Your task to perform on an android device: Search for vegetarian restaurants on Maps Image 0: 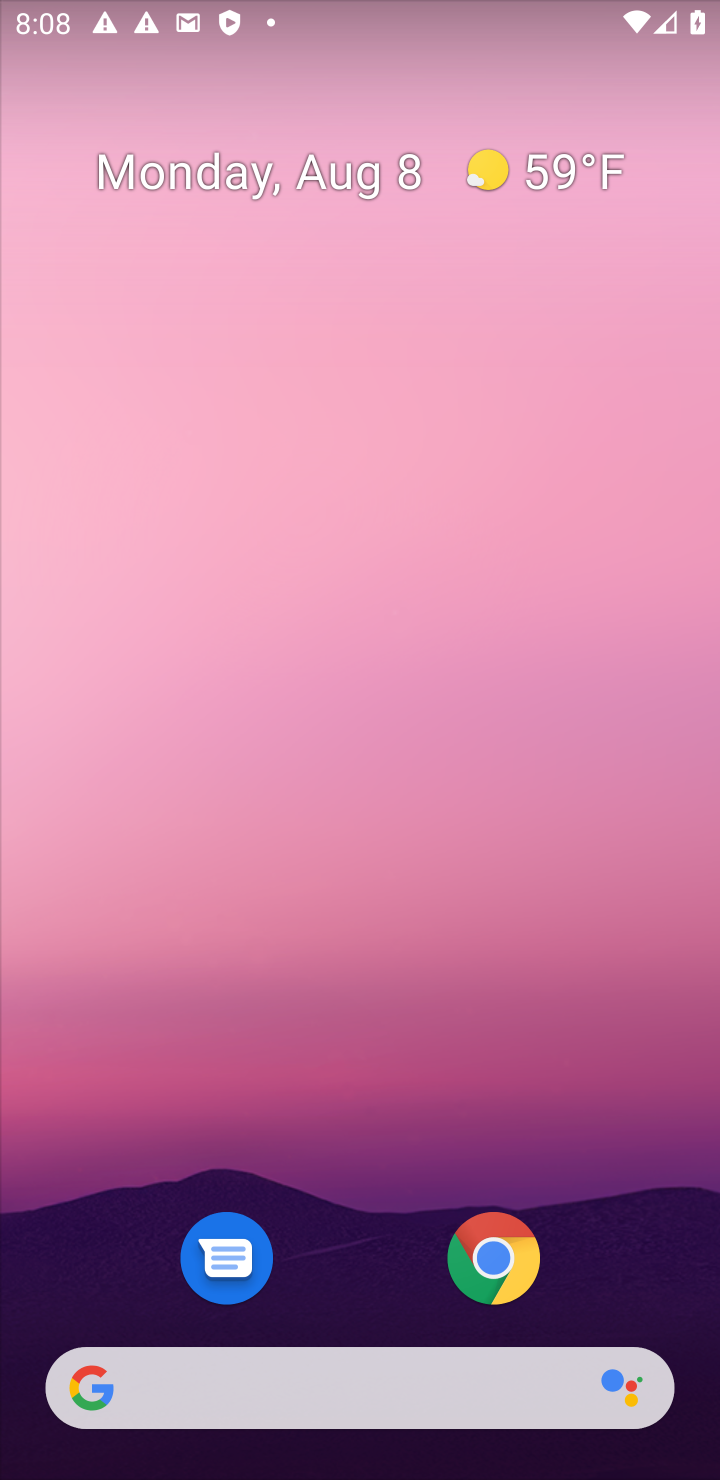
Step 0: drag from (373, 1157) to (380, 172)
Your task to perform on an android device: Search for vegetarian restaurants on Maps Image 1: 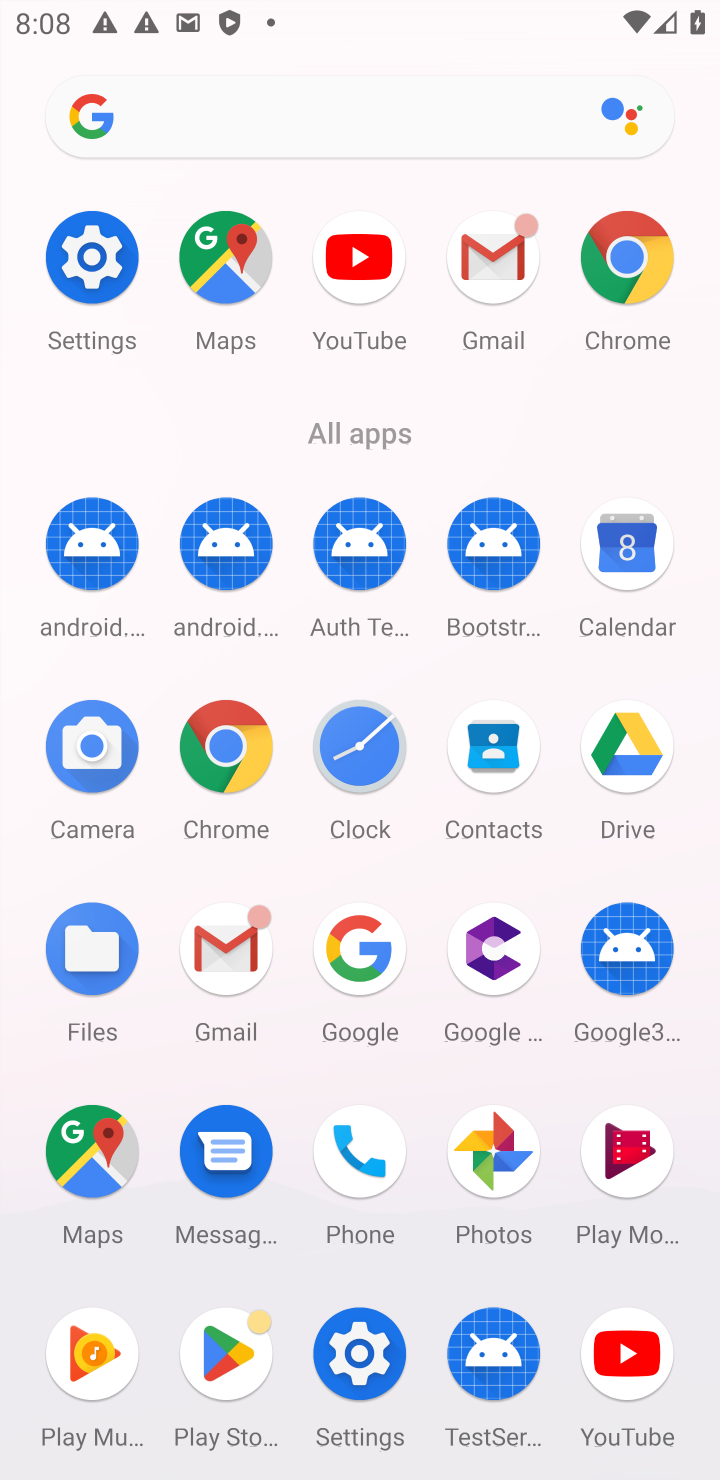
Step 1: click (69, 1164)
Your task to perform on an android device: Search for vegetarian restaurants on Maps Image 2: 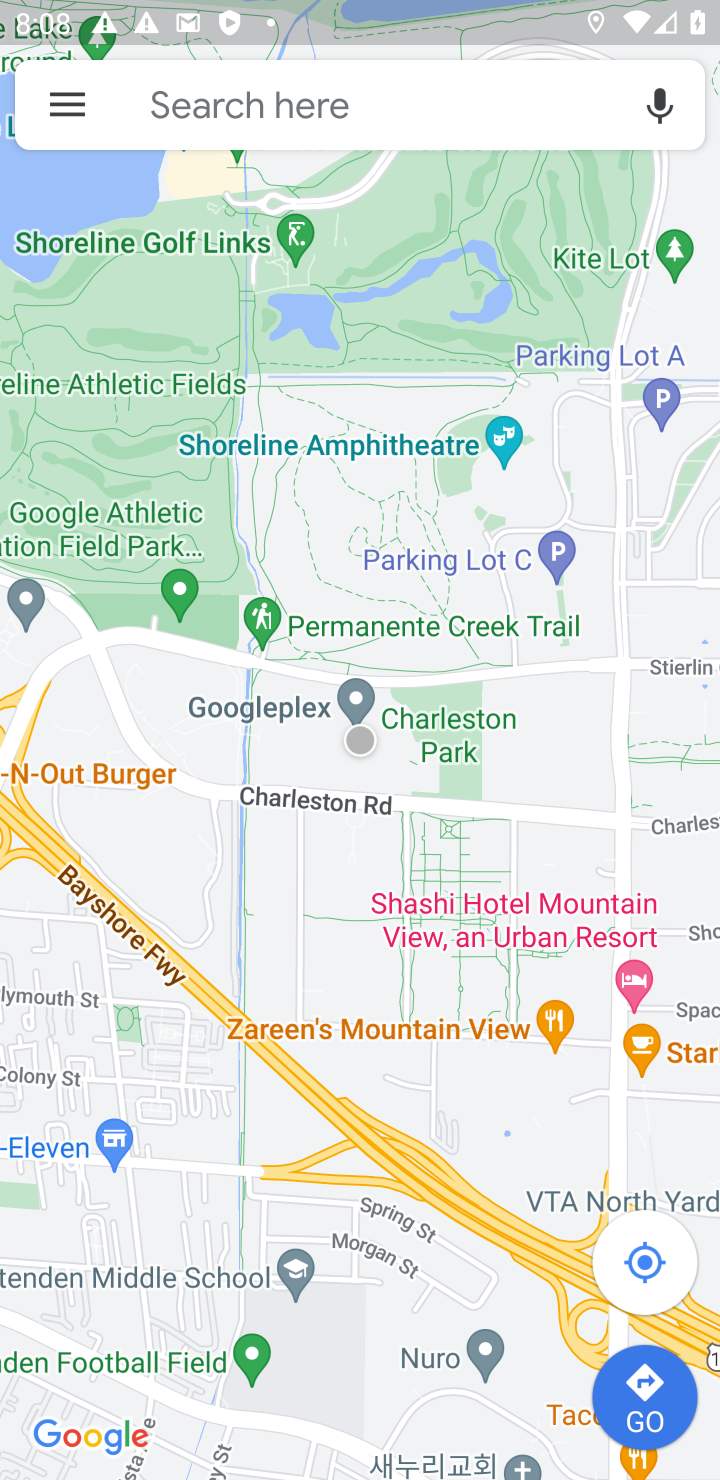
Step 2: click (459, 110)
Your task to perform on an android device: Search for vegetarian restaurants on Maps Image 3: 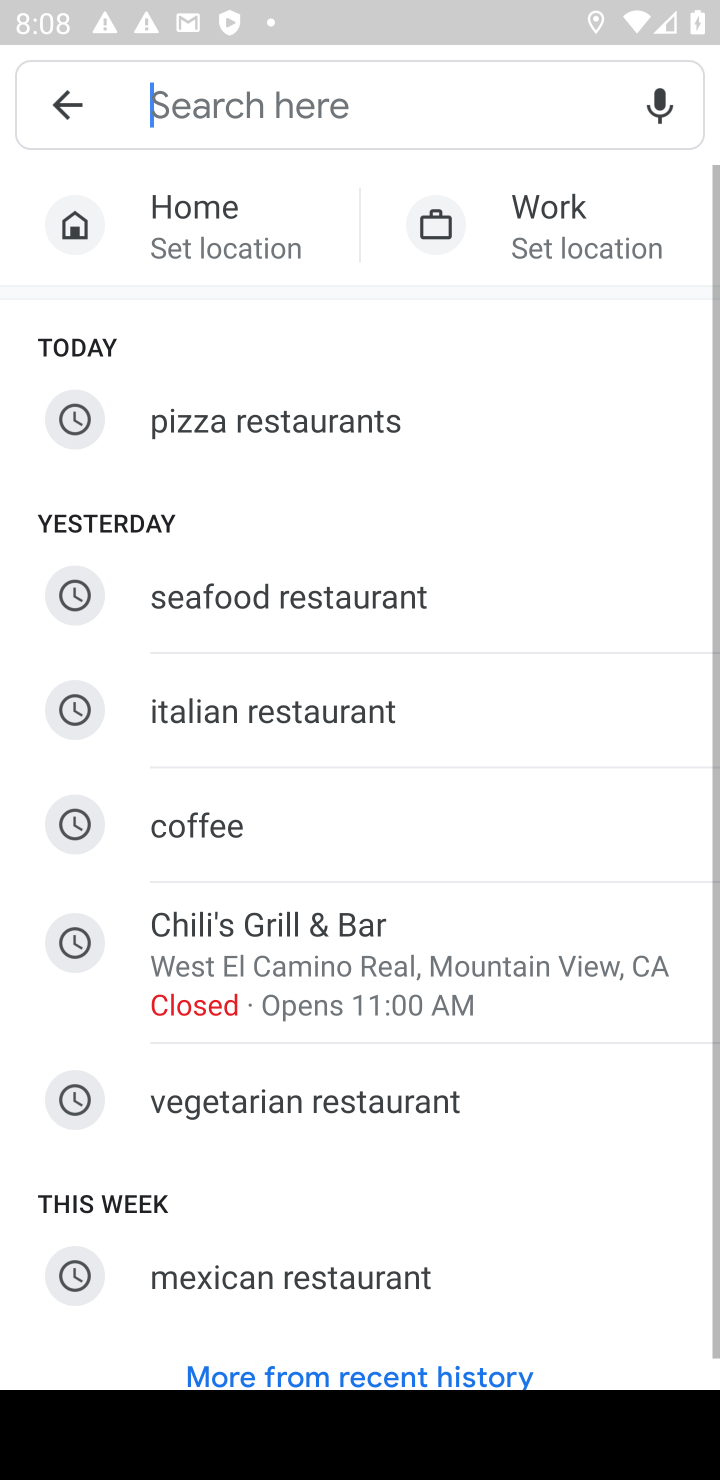
Step 3: type "vegetarian restaurants"
Your task to perform on an android device: Search for vegetarian restaurants on Maps Image 4: 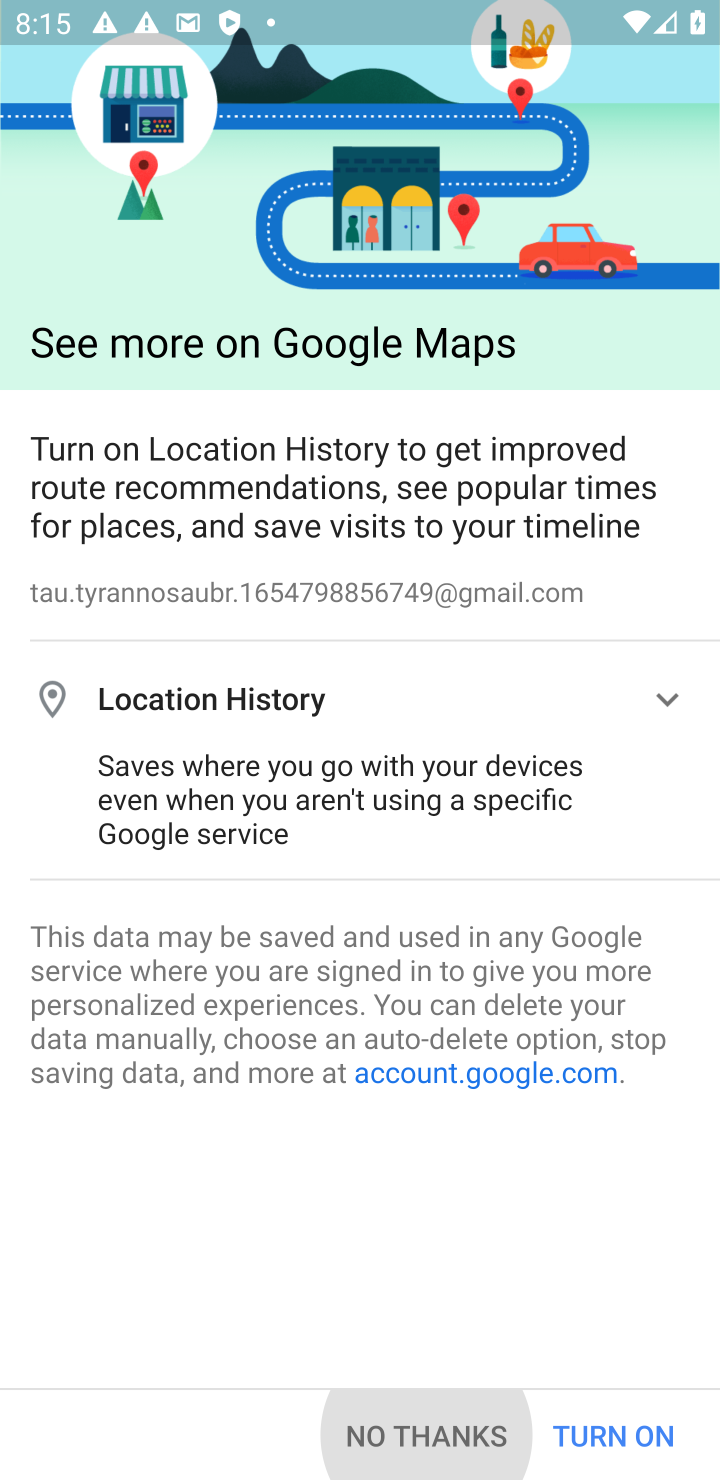
Step 4: press home button
Your task to perform on an android device: Search for vegetarian restaurants on Maps Image 5: 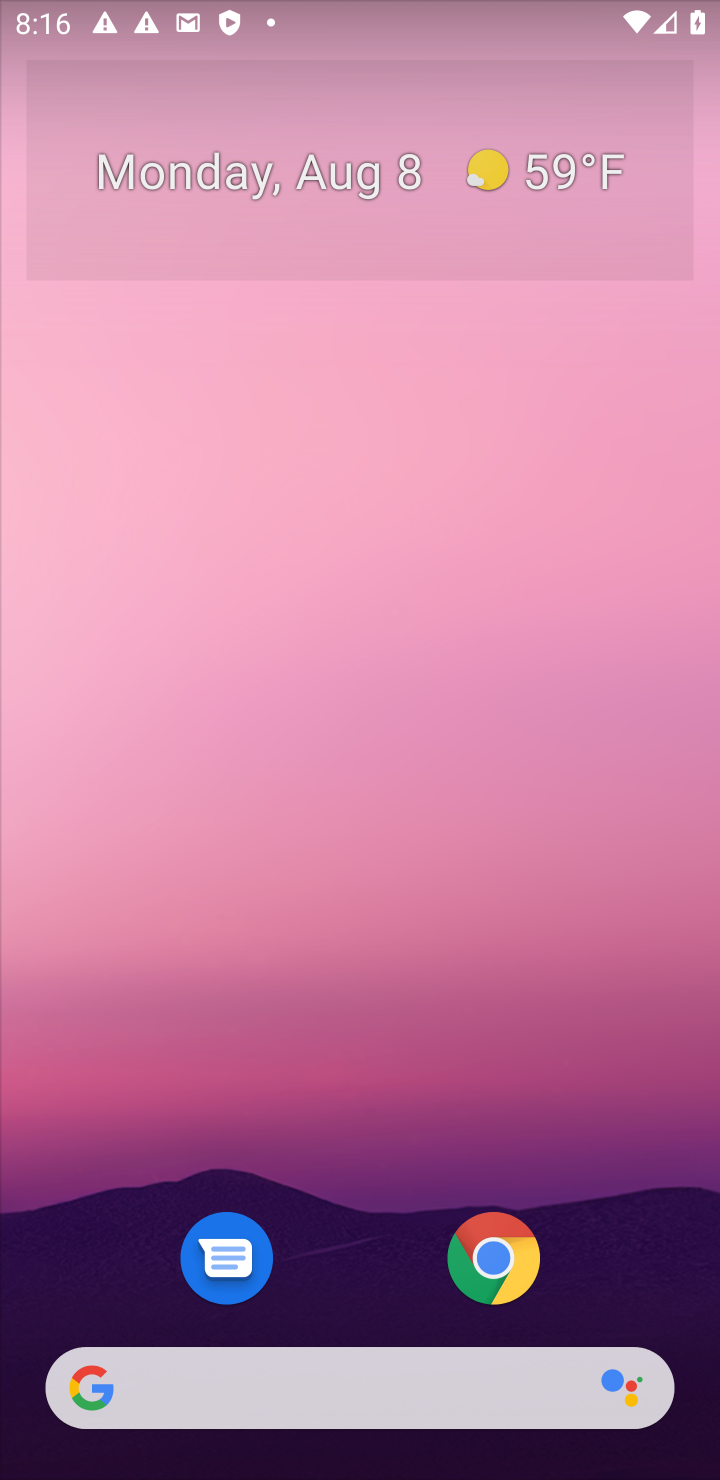
Step 5: drag from (423, 975) to (489, 104)
Your task to perform on an android device: Search for vegetarian restaurants on Maps Image 6: 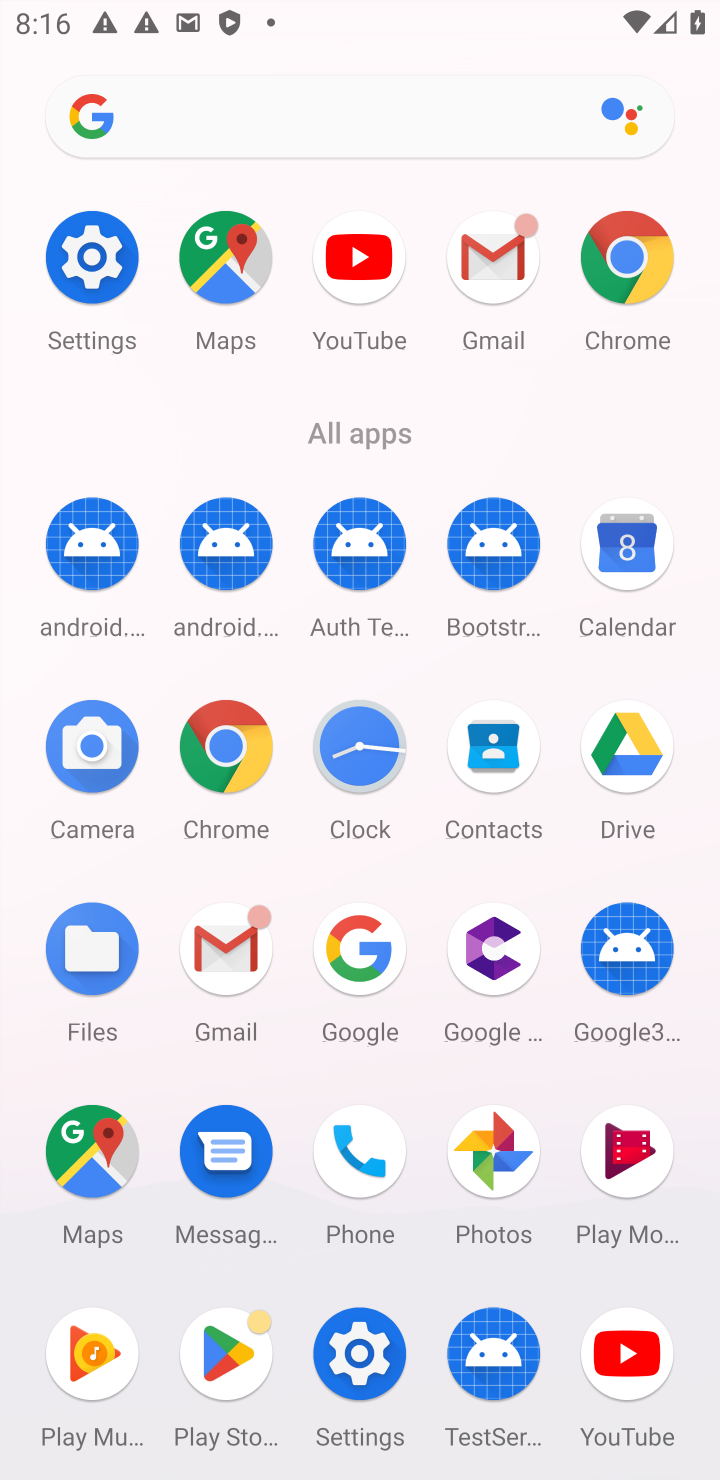
Step 6: click (225, 267)
Your task to perform on an android device: Search for vegetarian restaurants on Maps Image 7: 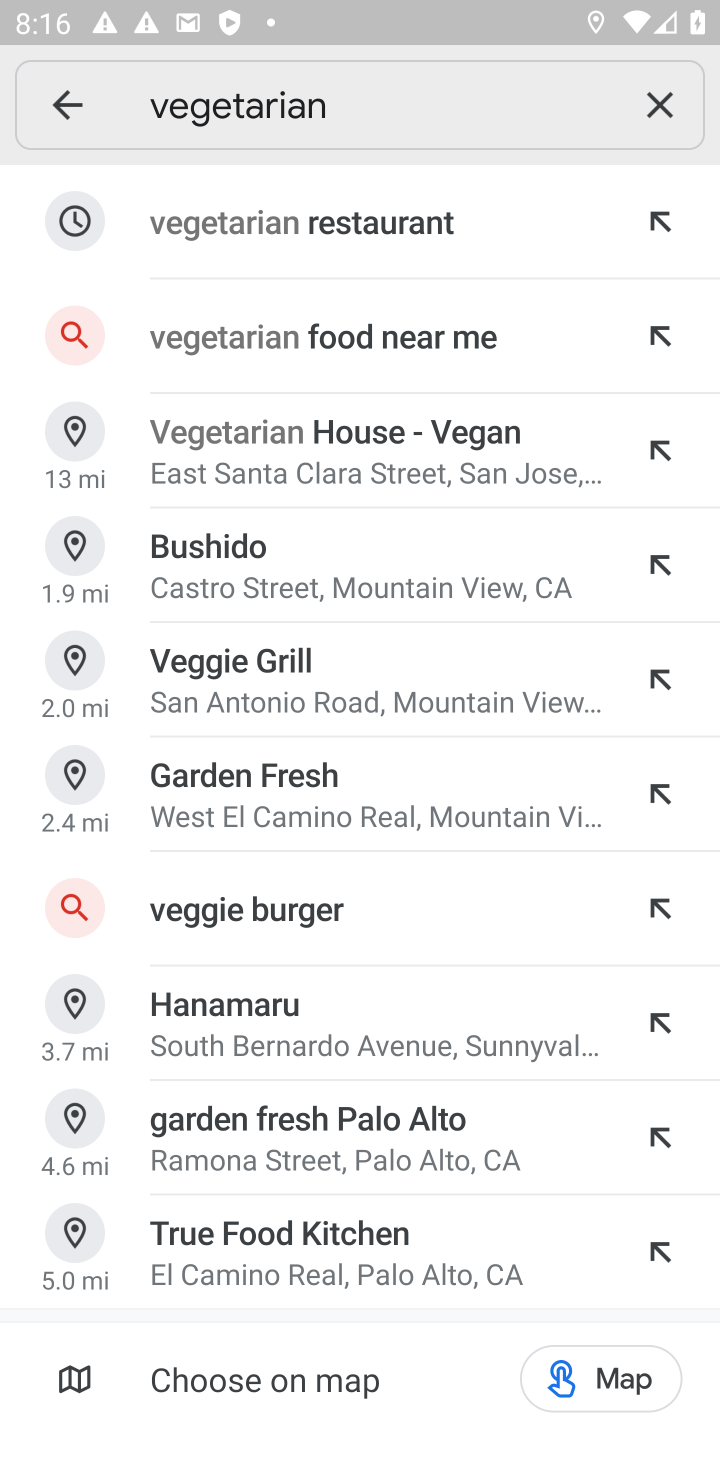
Step 7: click (351, 223)
Your task to perform on an android device: Search for vegetarian restaurants on Maps Image 8: 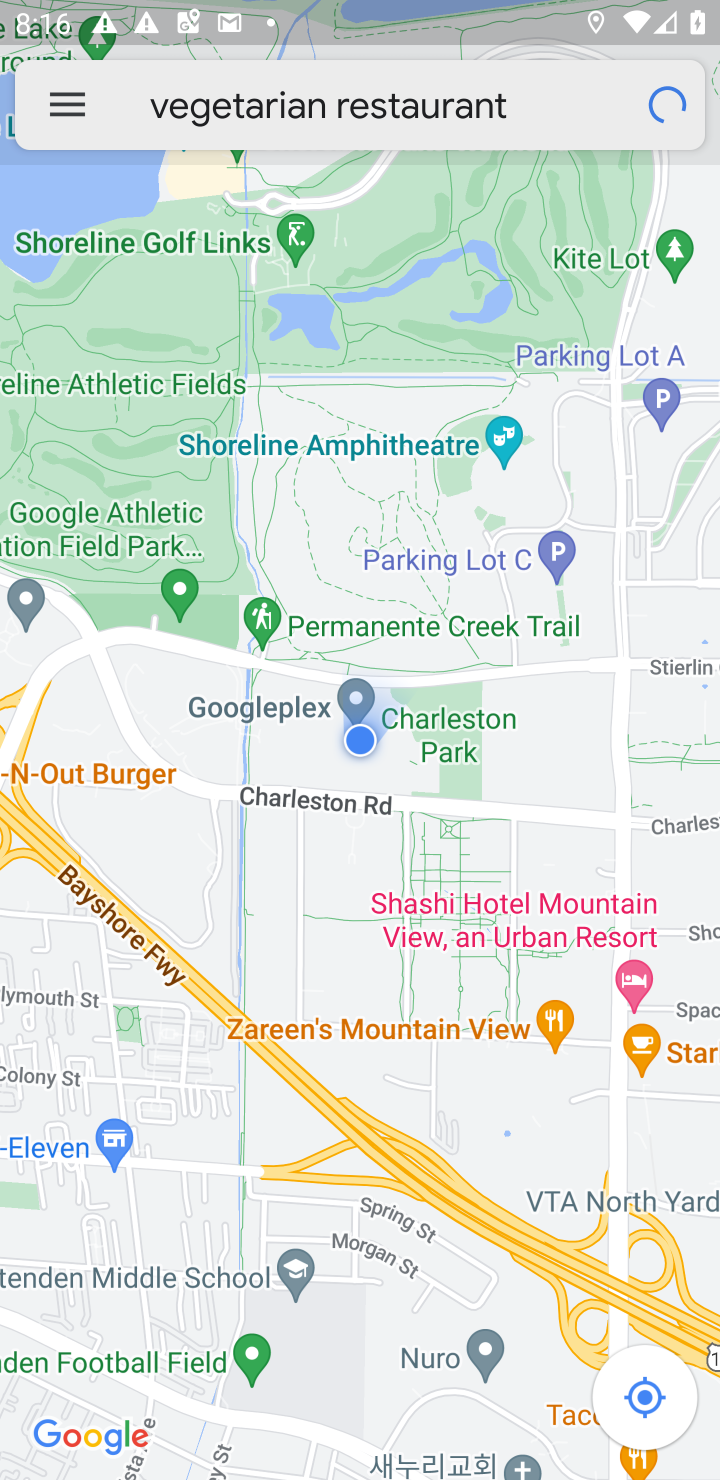
Step 8: task complete